Your task to perform on an android device: Search for pizza restaurants on Maps Image 0: 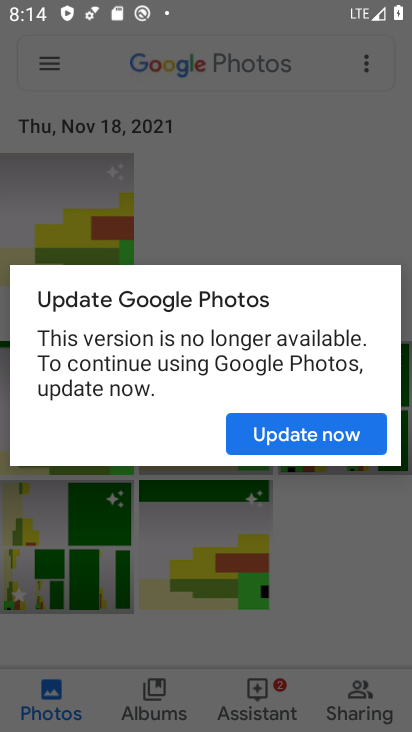
Step 0: press home button
Your task to perform on an android device: Search for pizza restaurants on Maps Image 1: 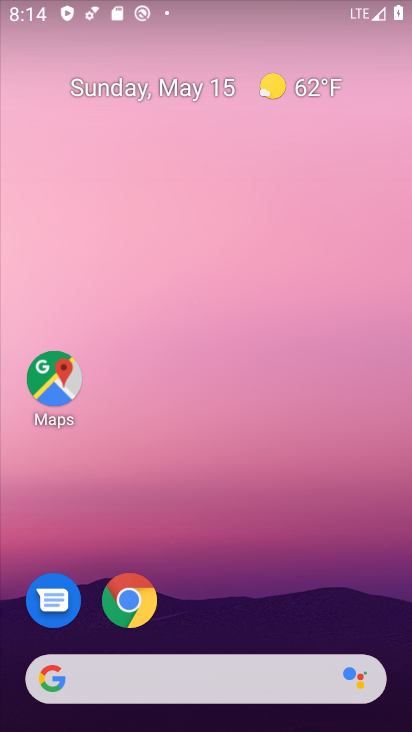
Step 1: click (57, 368)
Your task to perform on an android device: Search for pizza restaurants on Maps Image 2: 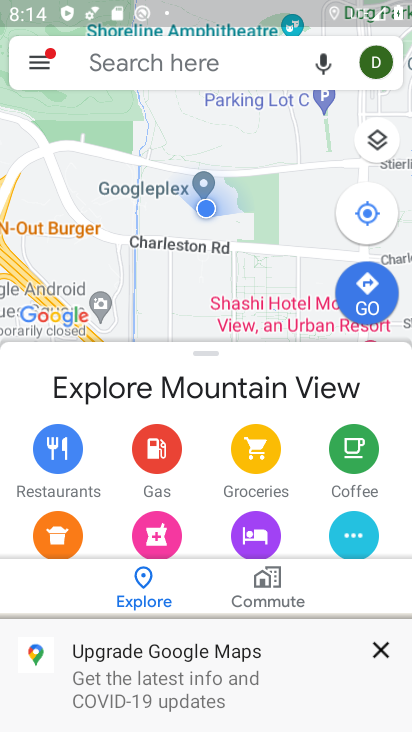
Step 2: click (98, 58)
Your task to perform on an android device: Search for pizza restaurants on Maps Image 3: 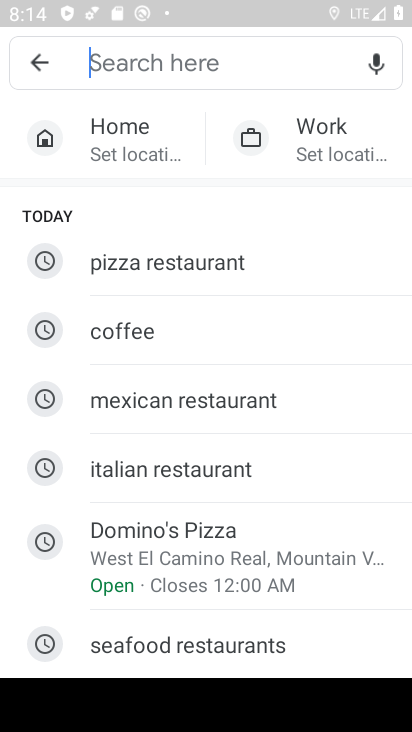
Step 3: click (169, 62)
Your task to perform on an android device: Search for pizza restaurants on Maps Image 4: 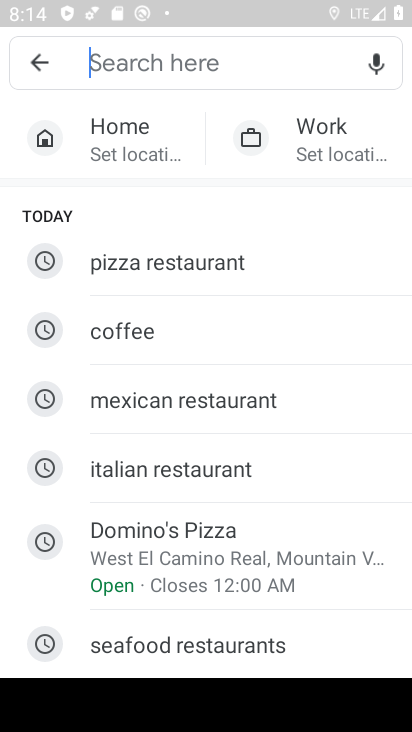
Step 4: click (202, 272)
Your task to perform on an android device: Search for pizza restaurants on Maps Image 5: 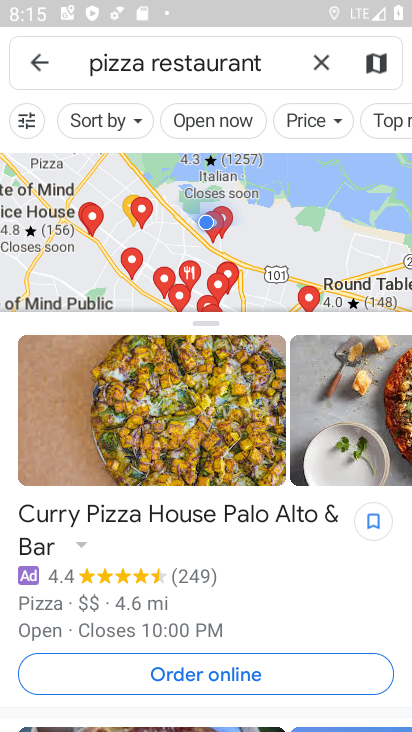
Step 5: task complete